Your task to perform on an android device: change notifications settings Image 0: 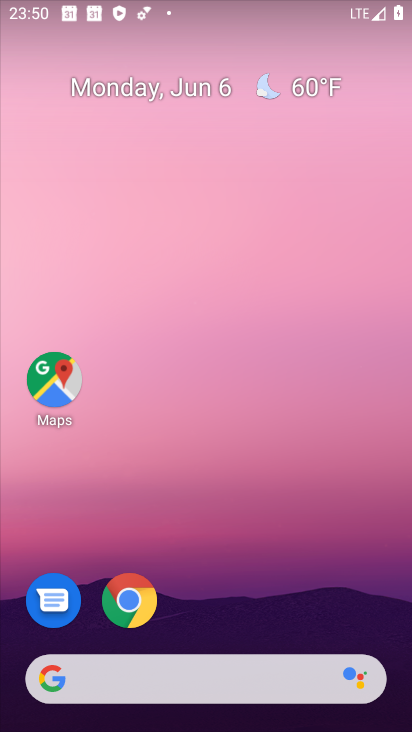
Step 0: drag from (233, 704) to (230, 54)
Your task to perform on an android device: change notifications settings Image 1: 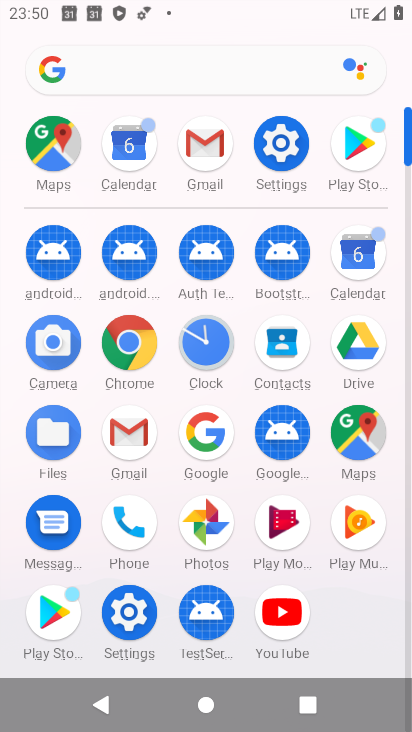
Step 1: click (270, 151)
Your task to perform on an android device: change notifications settings Image 2: 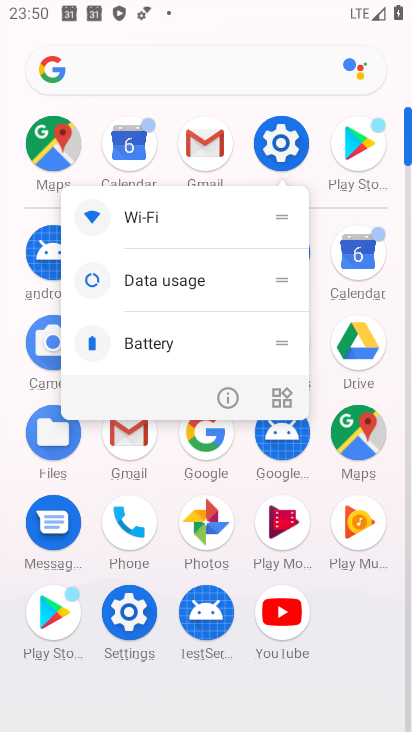
Step 2: click (287, 137)
Your task to perform on an android device: change notifications settings Image 3: 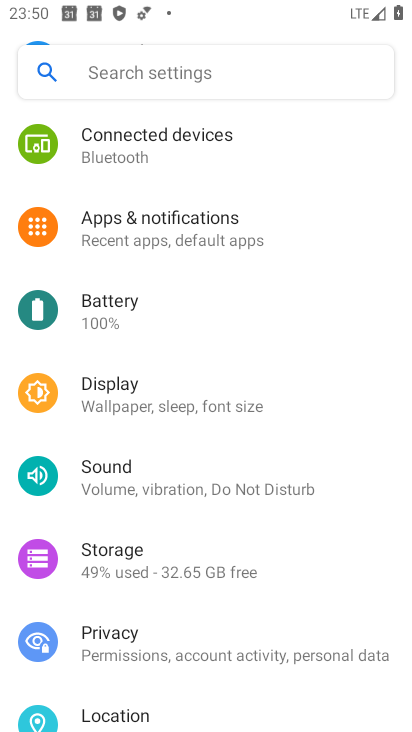
Step 3: click (191, 226)
Your task to perform on an android device: change notifications settings Image 4: 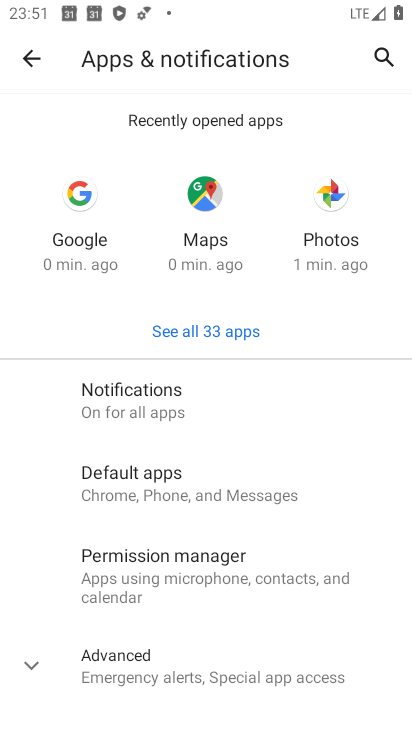
Step 4: click (141, 395)
Your task to perform on an android device: change notifications settings Image 5: 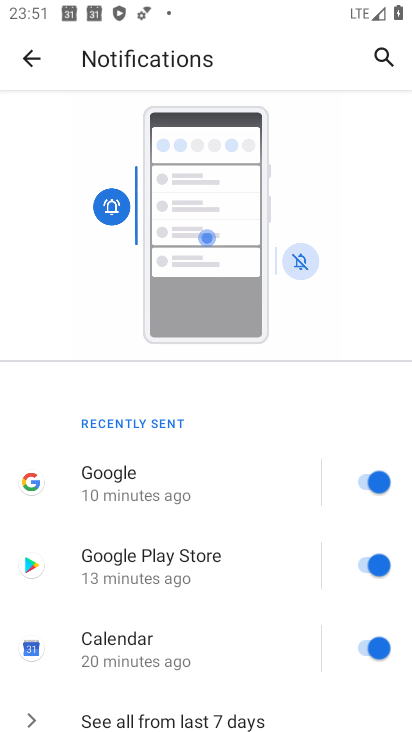
Step 5: drag from (240, 697) to (240, 404)
Your task to perform on an android device: change notifications settings Image 6: 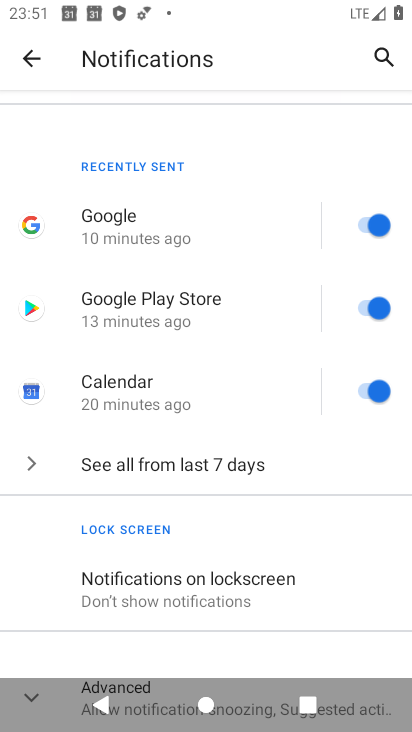
Step 6: drag from (297, 617) to (308, 382)
Your task to perform on an android device: change notifications settings Image 7: 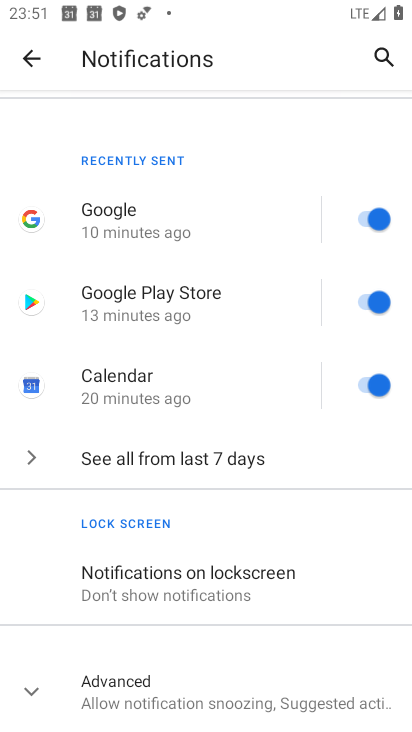
Step 7: click (141, 683)
Your task to perform on an android device: change notifications settings Image 8: 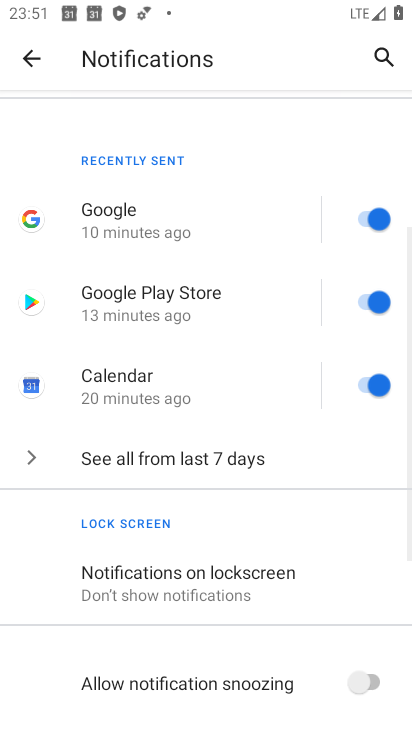
Step 8: click (382, 681)
Your task to perform on an android device: change notifications settings Image 9: 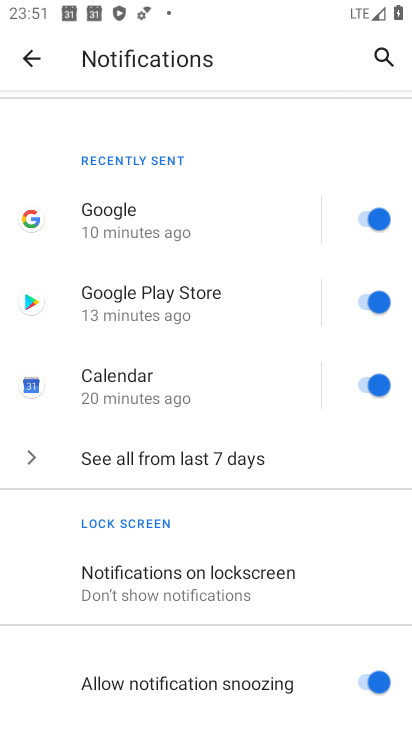
Step 9: task complete